Your task to perform on an android device: read, delete, or share a saved page in the chrome app Image 0: 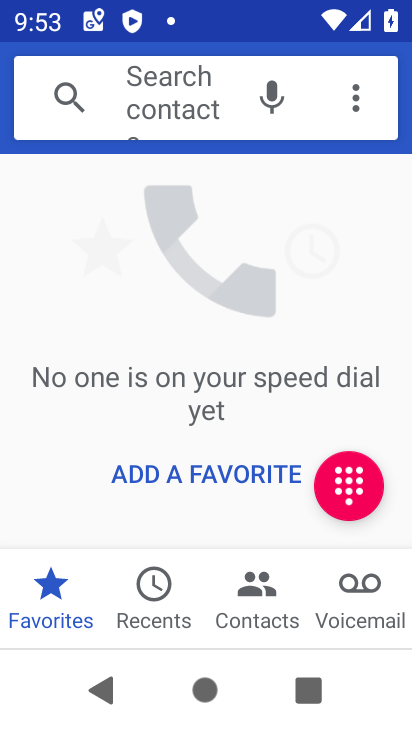
Step 0: press home button
Your task to perform on an android device: read, delete, or share a saved page in the chrome app Image 1: 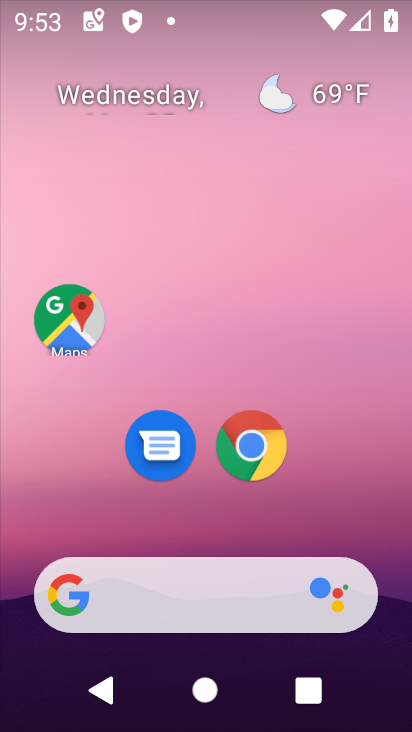
Step 1: click (267, 443)
Your task to perform on an android device: read, delete, or share a saved page in the chrome app Image 2: 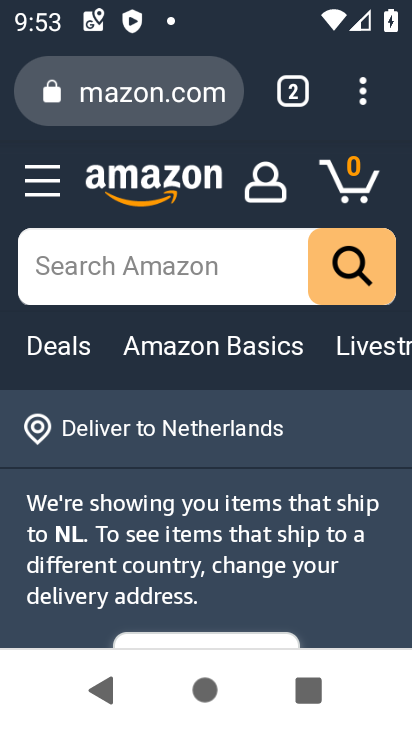
Step 2: click (358, 96)
Your task to perform on an android device: read, delete, or share a saved page in the chrome app Image 3: 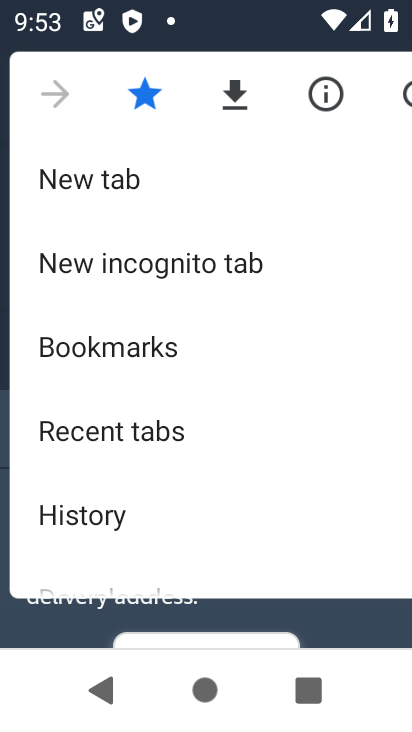
Step 3: drag from (179, 537) to (171, 357)
Your task to perform on an android device: read, delete, or share a saved page in the chrome app Image 4: 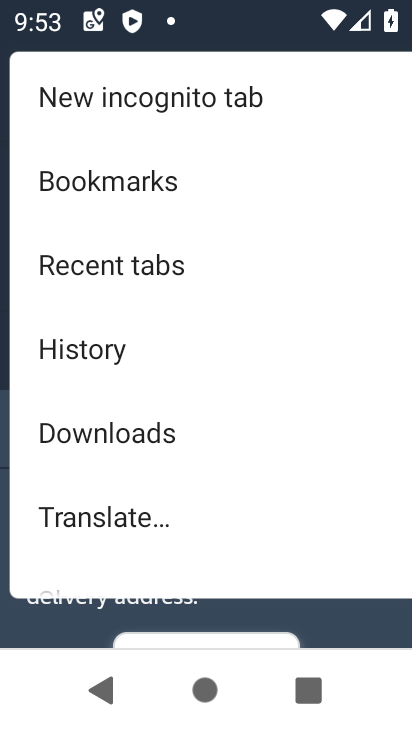
Step 4: click (132, 427)
Your task to perform on an android device: read, delete, or share a saved page in the chrome app Image 5: 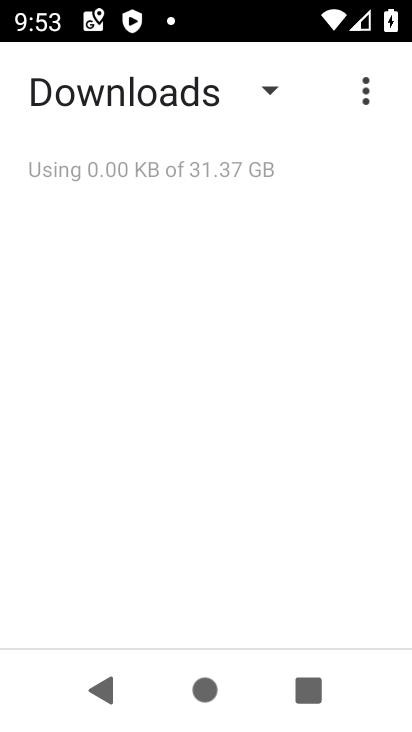
Step 5: click (269, 90)
Your task to perform on an android device: read, delete, or share a saved page in the chrome app Image 6: 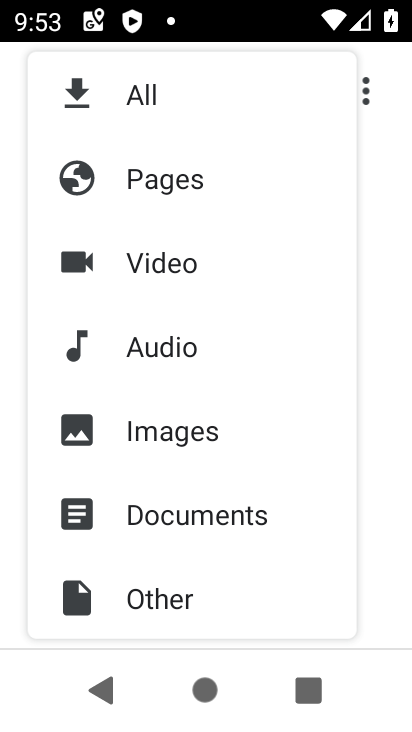
Step 6: click (169, 175)
Your task to perform on an android device: read, delete, or share a saved page in the chrome app Image 7: 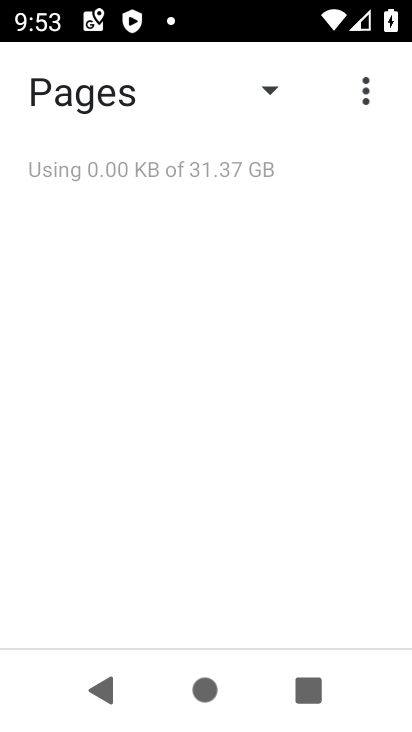
Step 7: task complete